Your task to perform on an android device: Open network settings Image 0: 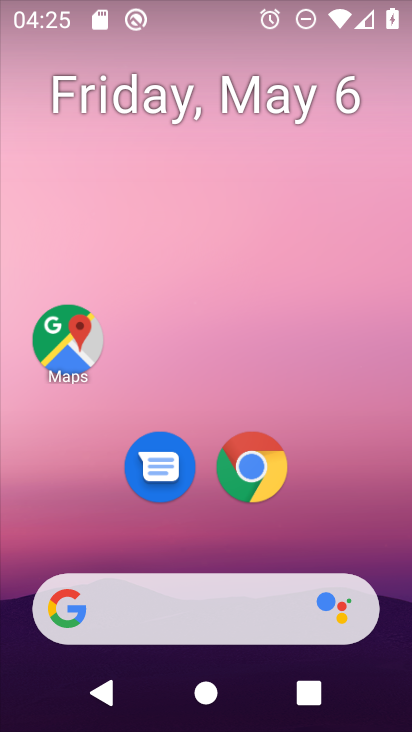
Step 0: drag from (268, 420) to (274, 110)
Your task to perform on an android device: Open network settings Image 1: 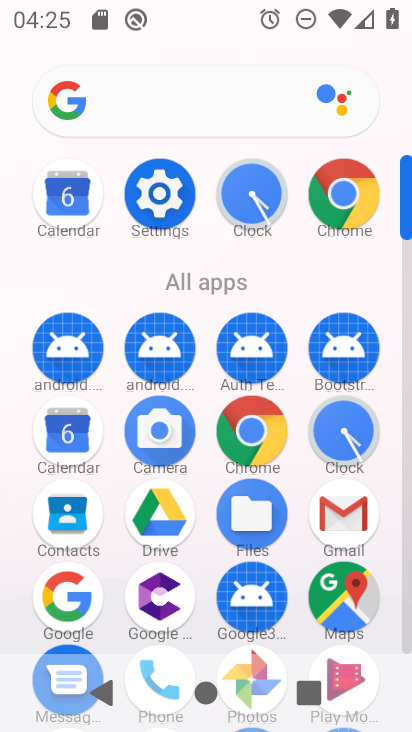
Step 1: click (144, 201)
Your task to perform on an android device: Open network settings Image 2: 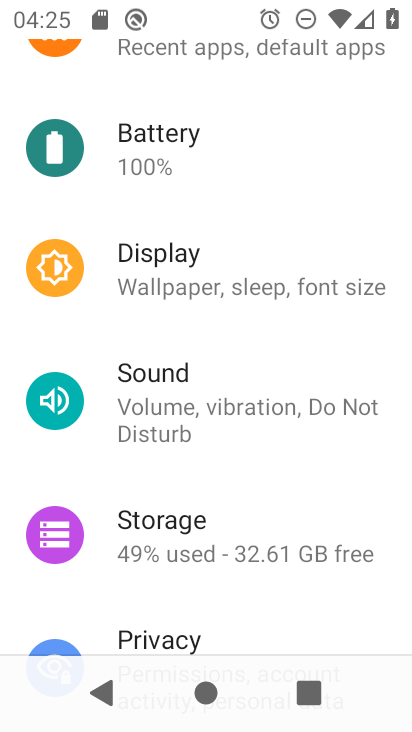
Step 2: drag from (249, 527) to (285, 112)
Your task to perform on an android device: Open network settings Image 3: 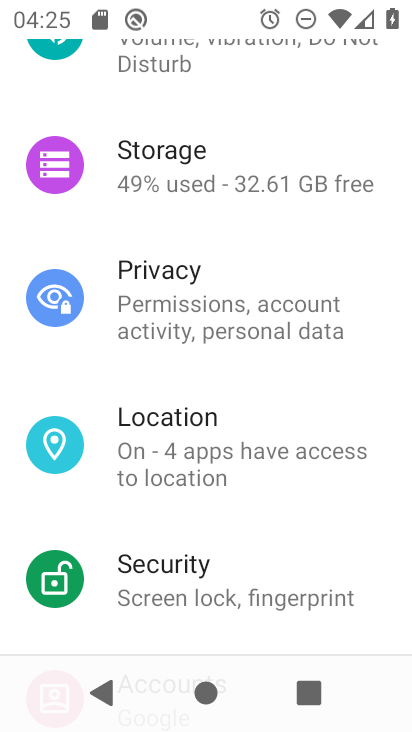
Step 3: drag from (211, 507) to (245, 86)
Your task to perform on an android device: Open network settings Image 4: 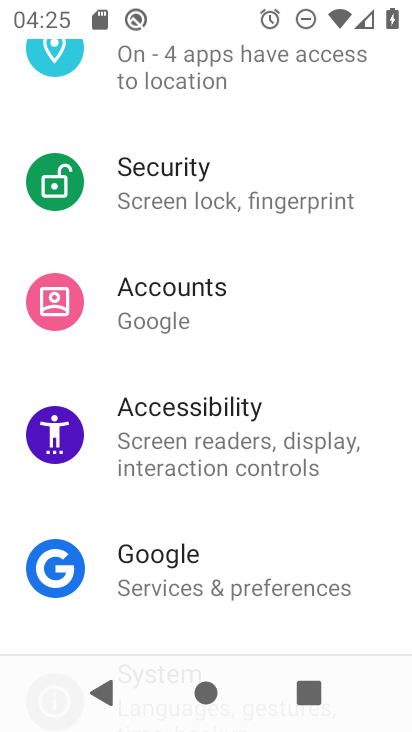
Step 4: drag from (203, 183) to (200, 577)
Your task to perform on an android device: Open network settings Image 5: 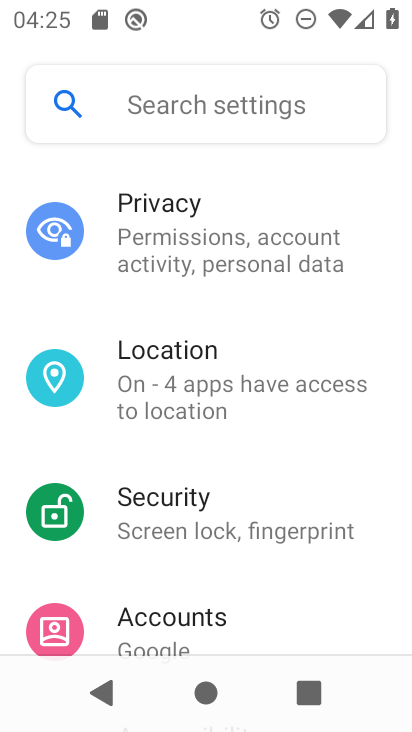
Step 5: drag from (262, 257) to (234, 606)
Your task to perform on an android device: Open network settings Image 6: 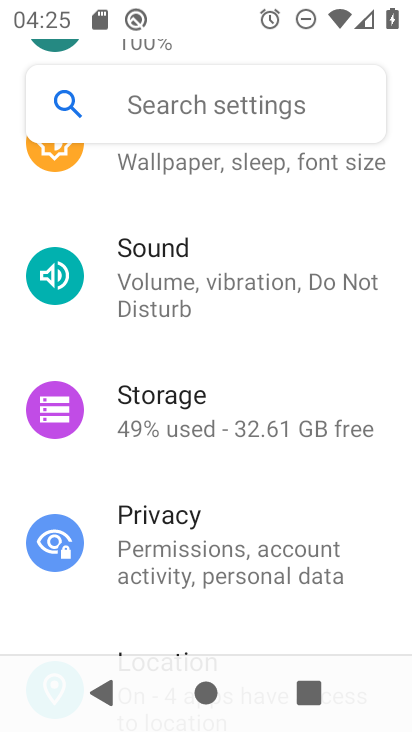
Step 6: drag from (253, 383) to (211, 670)
Your task to perform on an android device: Open network settings Image 7: 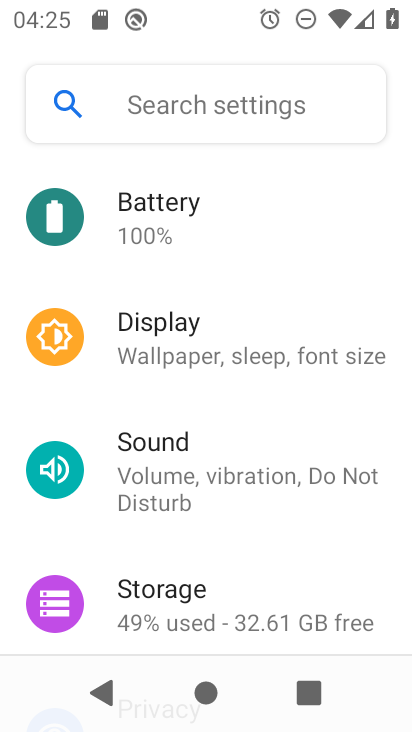
Step 7: drag from (262, 283) to (176, 731)
Your task to perform on an android device: Open network settings Image 8: 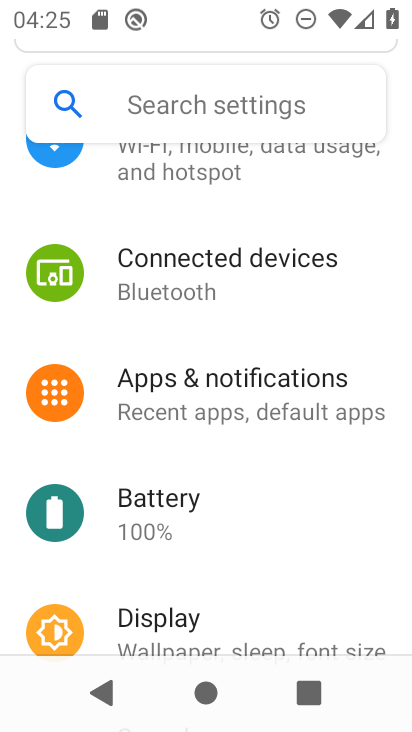
Step 8: drag from (275, 228) to (251, 681)
Your task to perform on an android device: Open network settings Image 9: 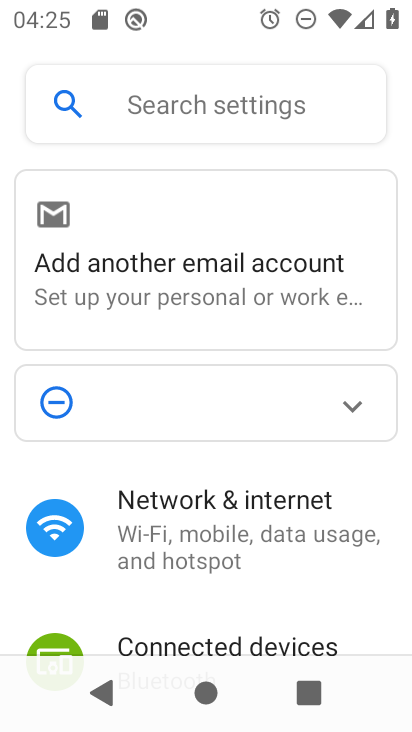
Step 9: click (210, 540)
Your task to perform on an android device: Open network settings Image 10: 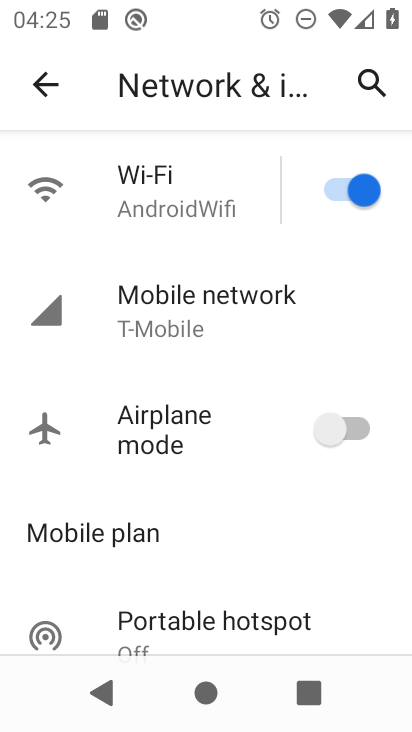
Step 10: task complete